Your task to perform on an android device: read, delete, or share a saved page in the chrome app Image 0: 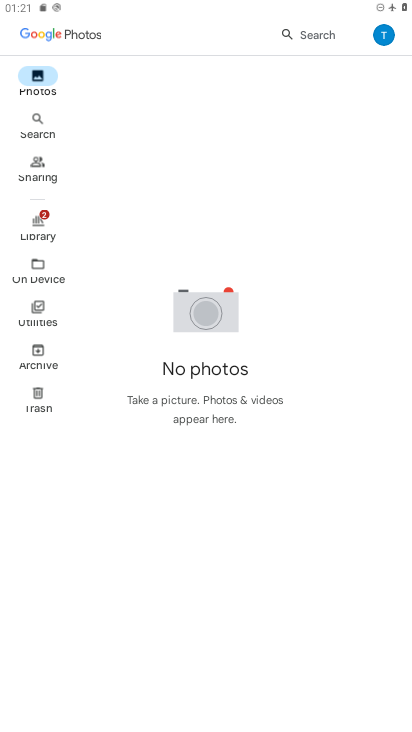
Step 0: press home button
Your task to perform on an android device: read, delete, or share a saved page in the chrome app Image 1: 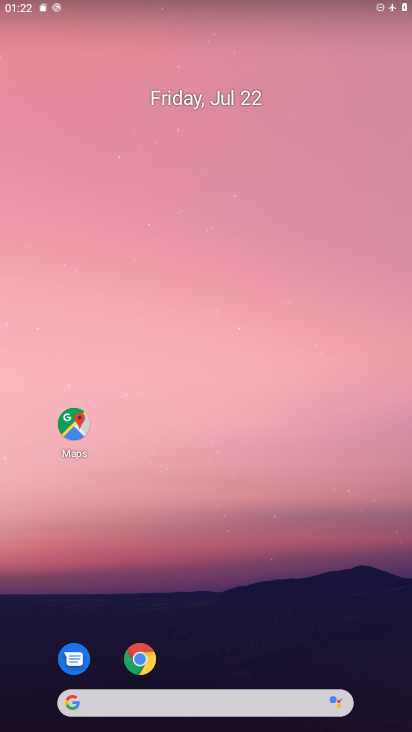
Step 1: click (139, 659)
Your task to perform on an android device: read, delete, or share a saved page in the chrome app Image 2: 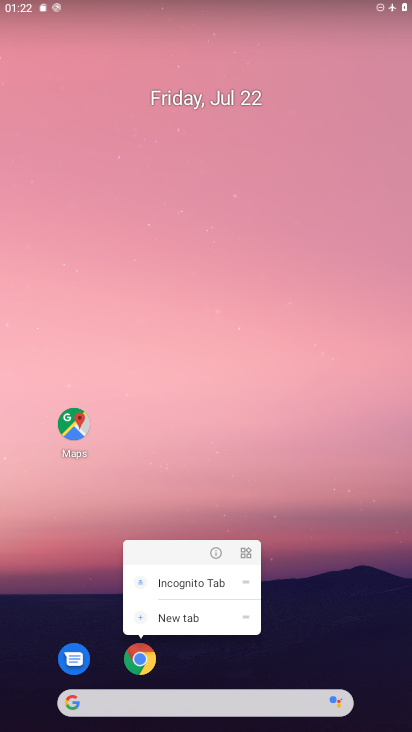
Step 2: click (139, 659)
Your task to perform on an android device: read, delete, or share a saved page in the chrome app Image 3: 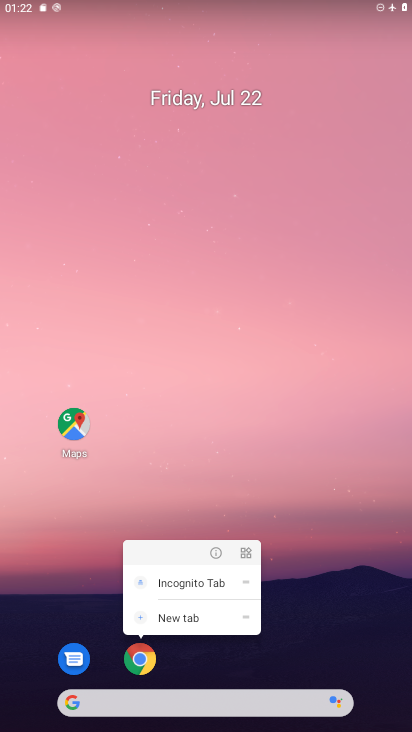
Step 3: click (139, 659)
Your task to perform on an android device: read, delete, or share a saved page in the chrome app Image 4: 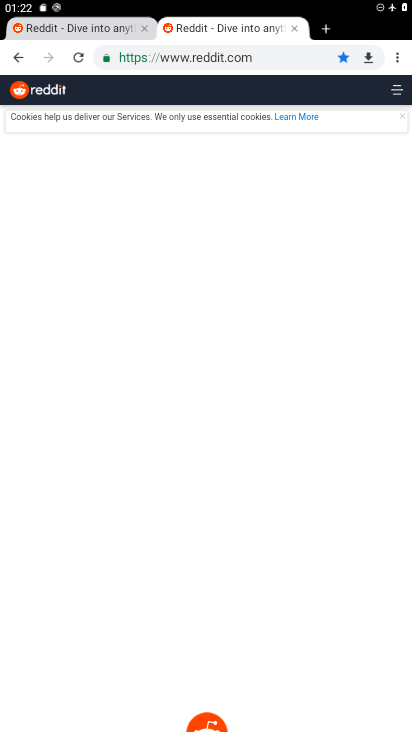
Step 4: click (398, 59)
Your task to perform on an android device: read, delete, or share a saved page in the chrome app Image 5: 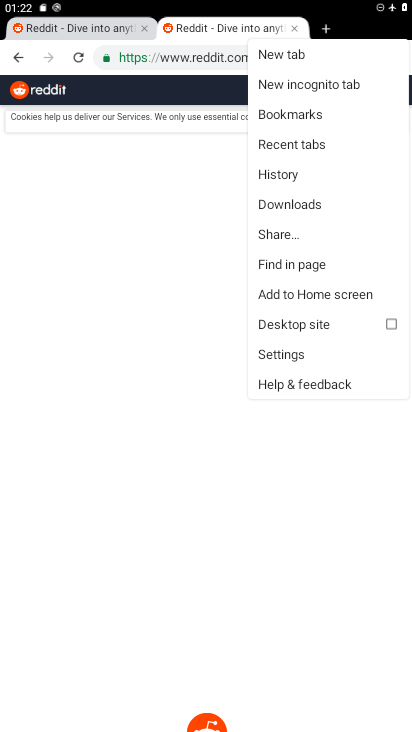
Step 5: click (285, 202)
Your task to perform on an android device: read, delete, or share a saved page in the chrome app Image 6: 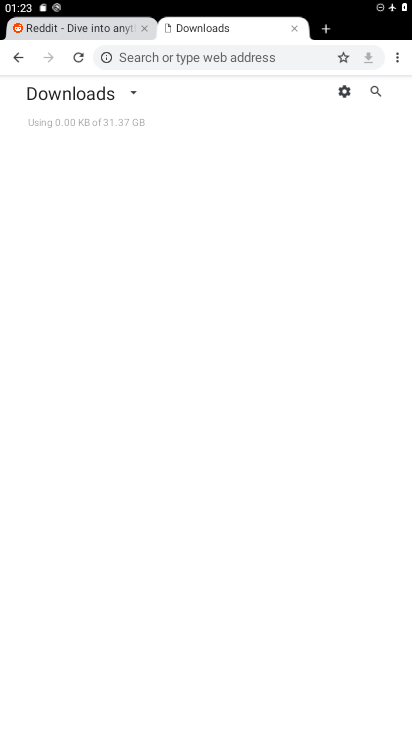
Step 6: click (130, 90)
Your task to perform on an android device: read, delete, or share a saved page in the chrome app Image 7: 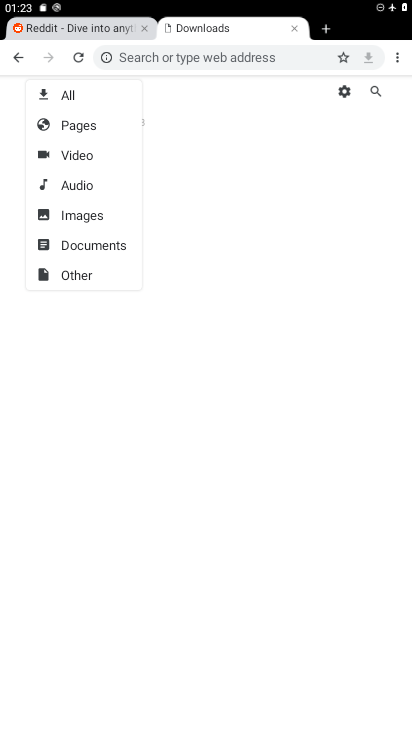
Step 7: click (62, 210)
Your task to perform on an android device: read, delete, or share a saved page in the chrome app Image 8: 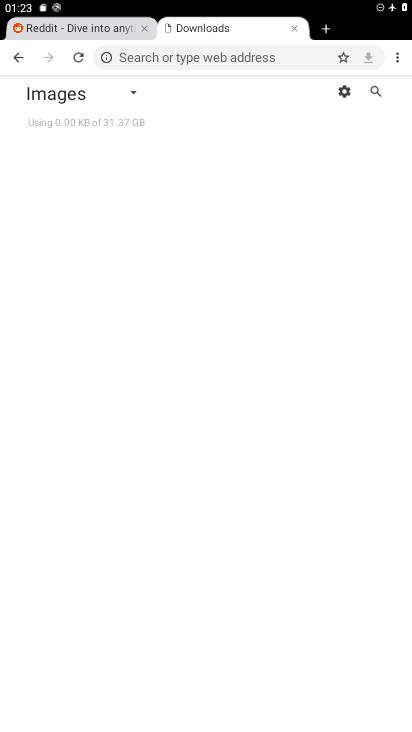
Step 8: task complete